Your task to perform on an android device: Go to privacy settings Image 0: 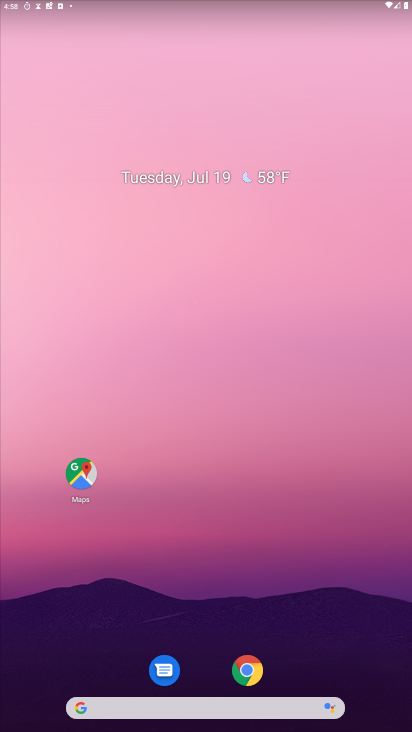
Step 0: drag from (290, 706) to (358, 53)
Your task to perform on an android device: Go to privacy settings Image 1: 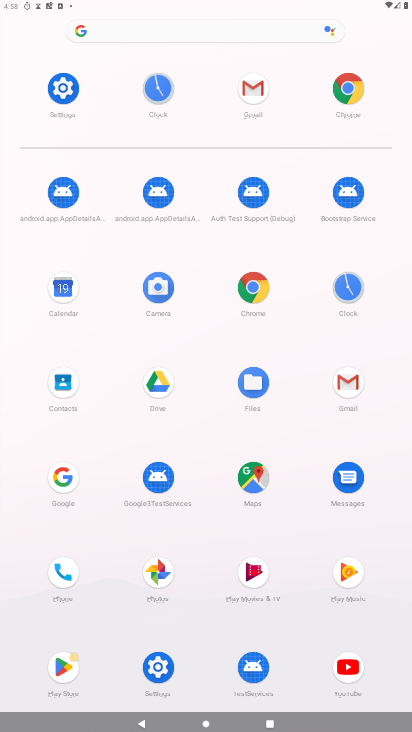
Step 1: click (56, 88)
Your task to perform on an android device: Go to privacy settings Image 2: 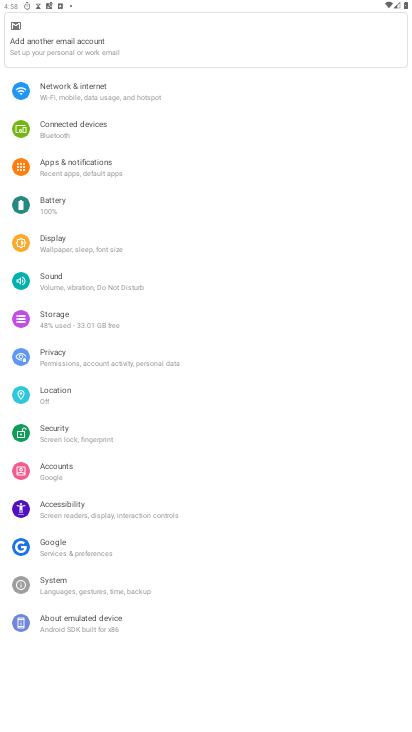
Step 2: click (68, 350)
Your task to perform on an android device: Go to privacy settings Image 3: 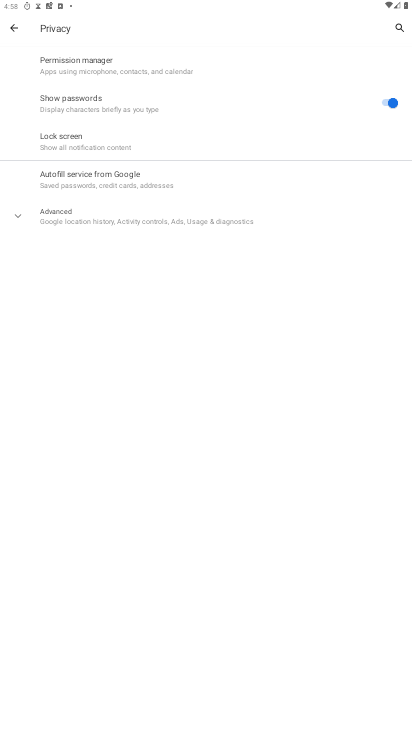
Step 3: task complete